Your task to perform on an android device: turn on airplane mode Image 0: 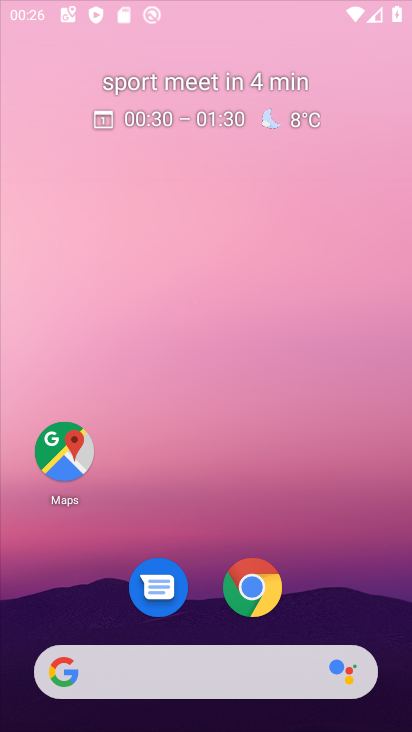
Step 0: click (261, 580)
Your task to perform on an android device: turn on airplane mode Image 1: 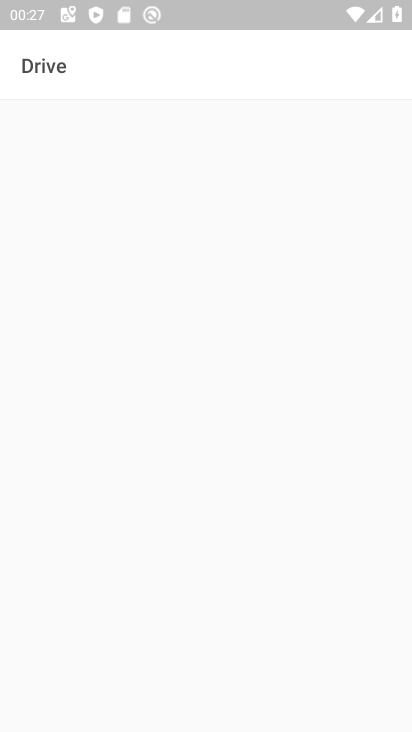
Step 1: press home button
Your task to perform on an android device: turn on airplane mode Image 2: 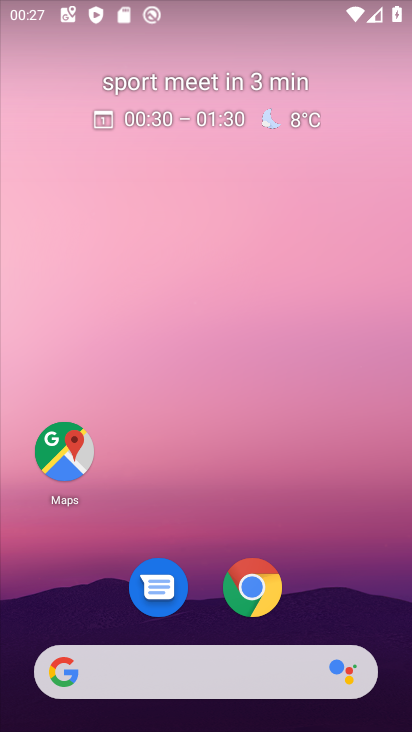
Step 2: drag from (397, 682) to (342, 114)
Your task to perform on an android device: turn on airplane mode Image 3: 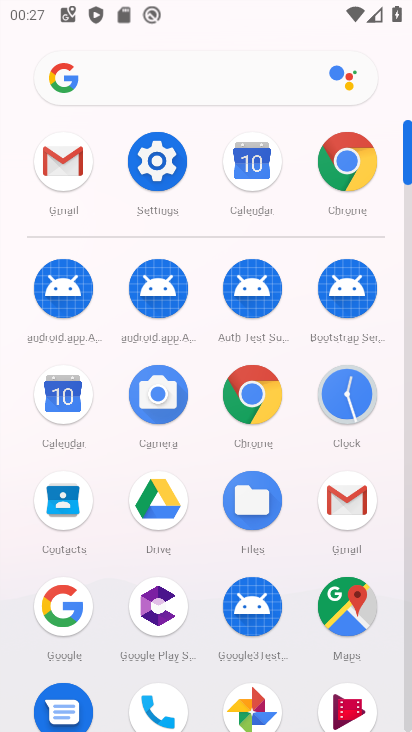
Step 3: click (151, 172)
Your task to perform on an android device: turn on airplane mode Image 4: 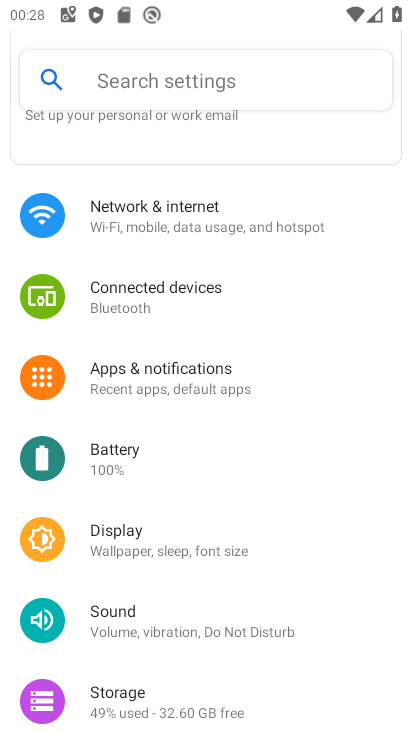
Step 4: click (155, 219)
Your task to perform on an android device: turn on airplane mode Image 5: 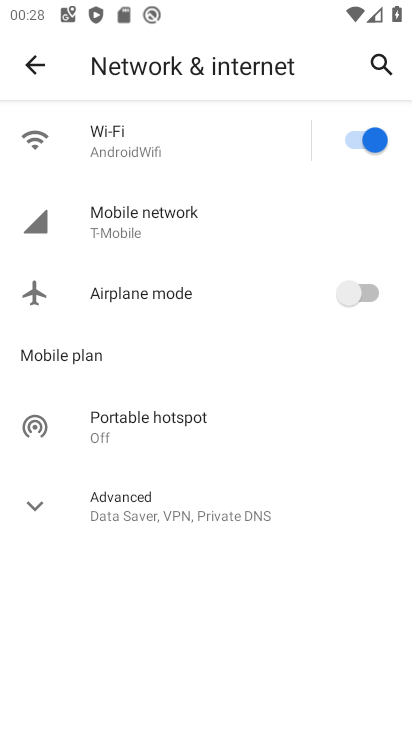
Step 5: click (370, 293)
Your task to perform on an android device: turn on airplane mode Image 6: 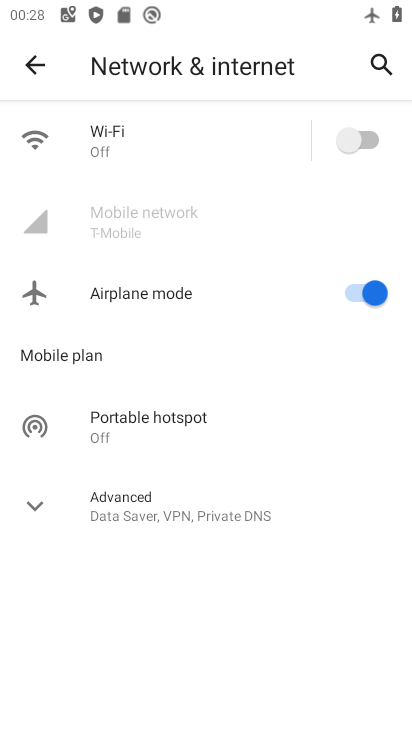
Step 6: task complete